Your task to perform on an android device: Open settings Image 0: 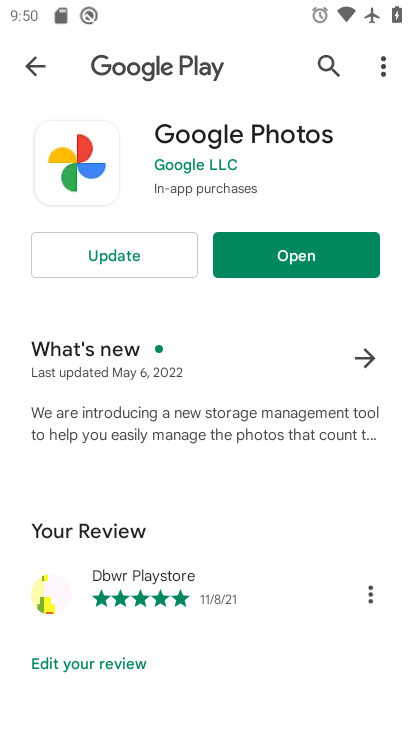
Step 0: press home button
Your task to perform on an android device: Open settings Image 1: 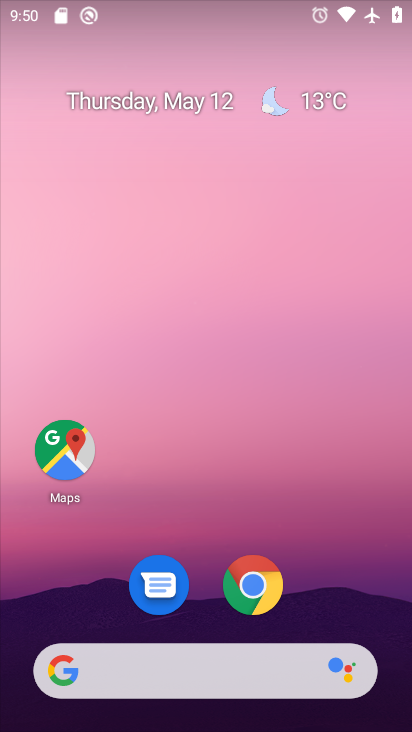
Step 1: drag from (244, 507) to (240, 11)
Your task to perform on an android device: Open settings Image 2: 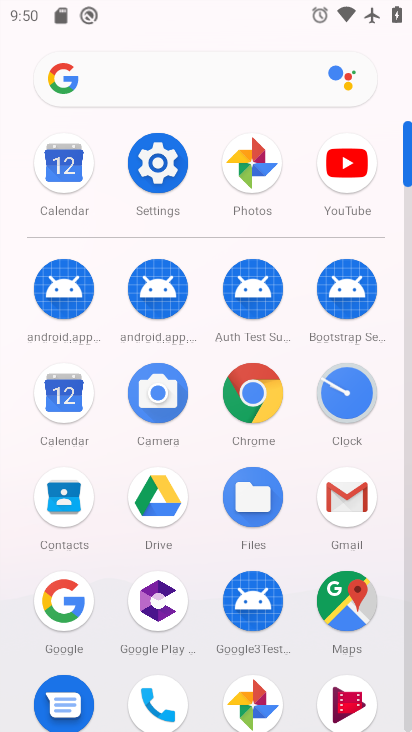
Step 2: click (160, 149)
Your task to perform on an android device: Open settings Image 3: 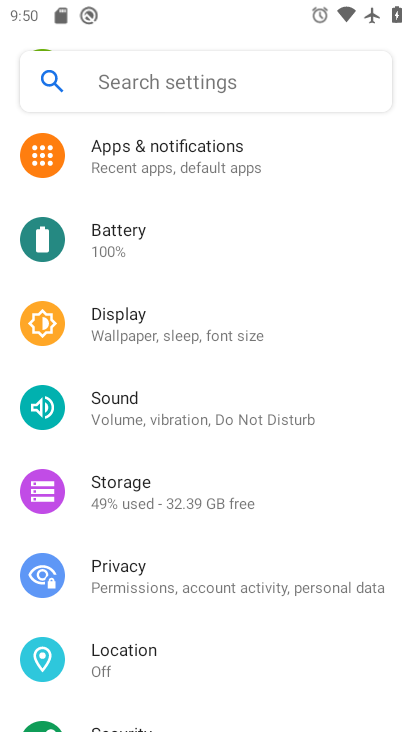
Step 3: task complete